Your task to perform on an android device: Search for sushi restaurants on Maps Image 0: 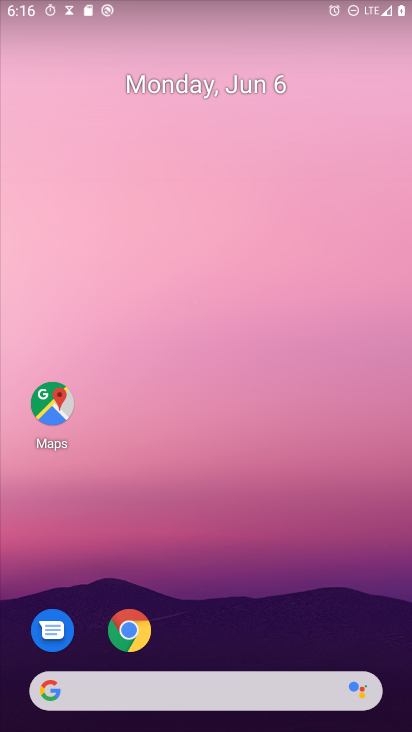
Step 0: click (64, 412)
Your task to perform on an android device: Search for sushi restaurants on Maps Image 1: 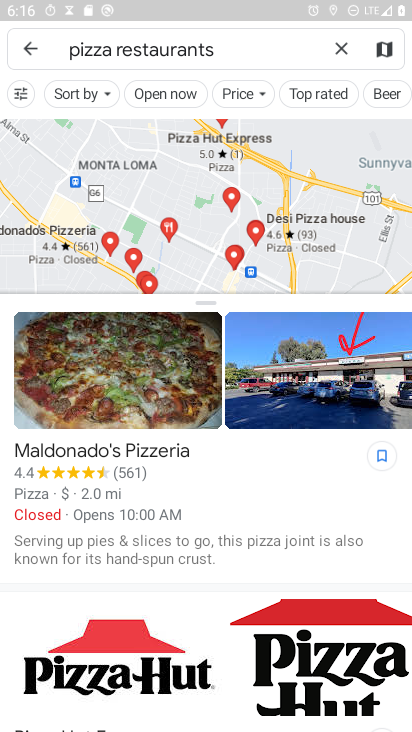
Step 1: click (343, 53)
Your task to perform on an android device: Search for sushi restaurants on Maps Image 2: 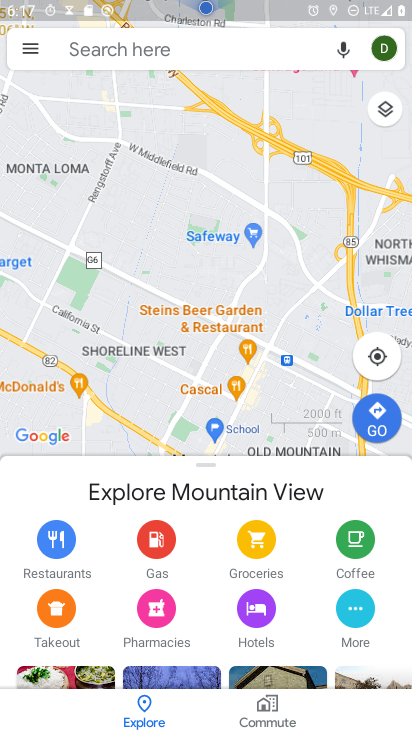
Step 2: click (156, 54)
Your task to perform on an android device: Search for sushi restaurants on Maps Image 3: 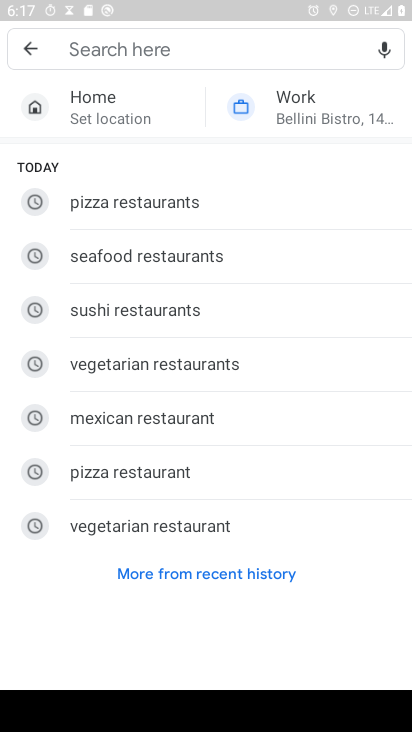
Step 3: click (164, 318)
Your task to perform on an android device: Search for sushi restaurants on Maps Image 4: 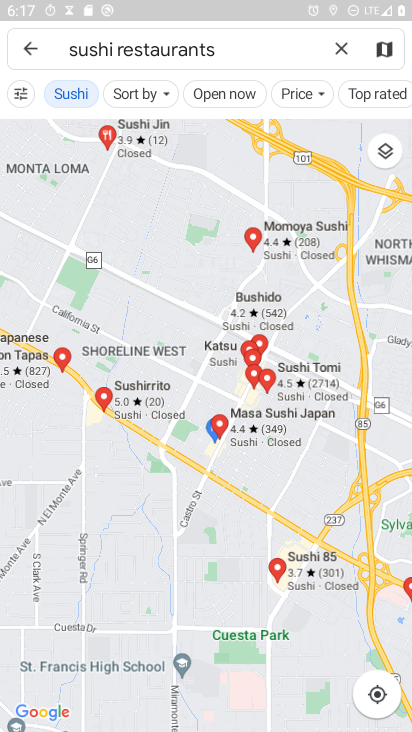
Step 4: task complete